Your task to perform on an android device: Go to Maps Image 0: 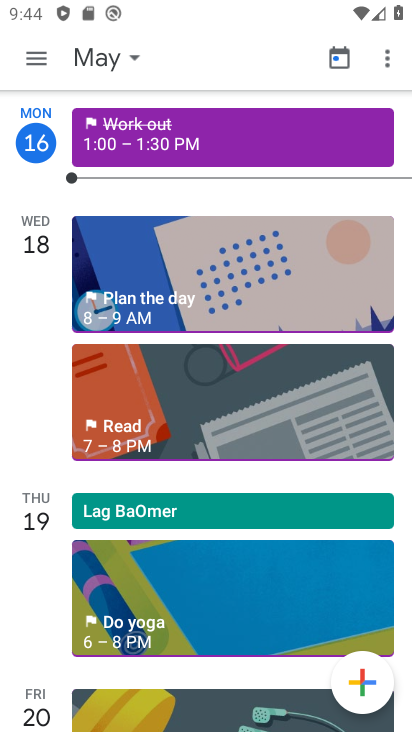
Step 0: press home button
Your task to perform on an android device: Go to Maps Image 1: 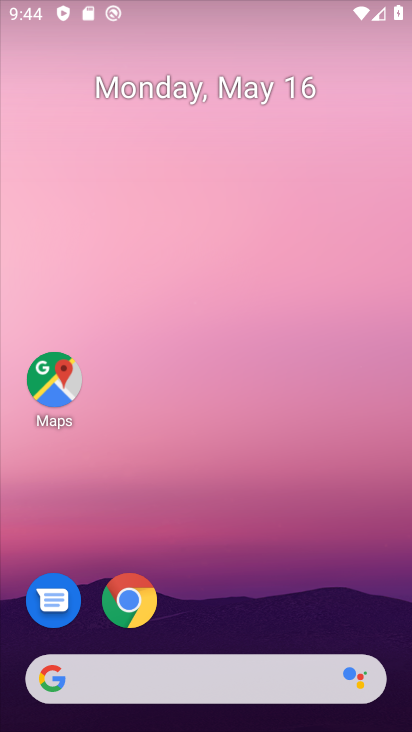
Step 1: drag from (375, 576) to (351, 169)
Your task to perform on an android device: Go to Maps Image 2: 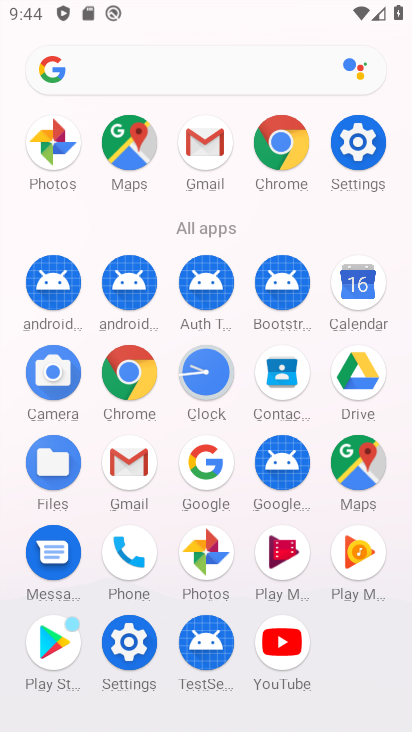
Step 2: click (132, 150)
Your task to perform on an android device: Go to Maps Image 3: 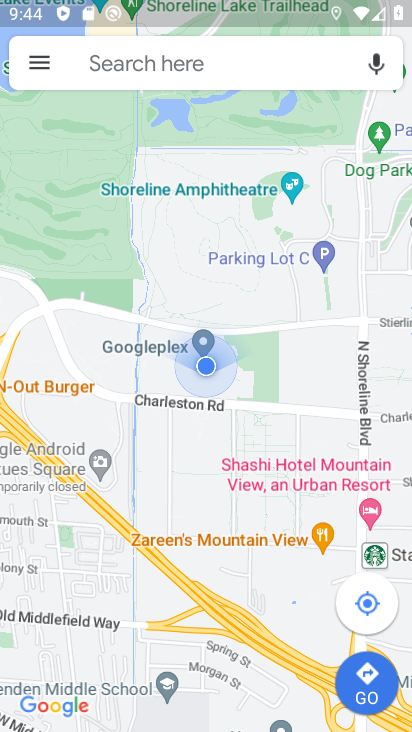
Step 3: task complete